Your task to perform on an android device: Open Google Maps Image 0: 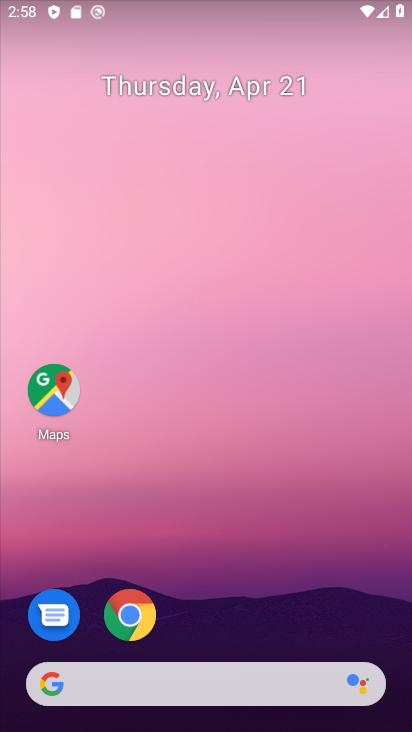
Step 0: press home button
Your task to perform on an android device: Open Google Maps Image 1: 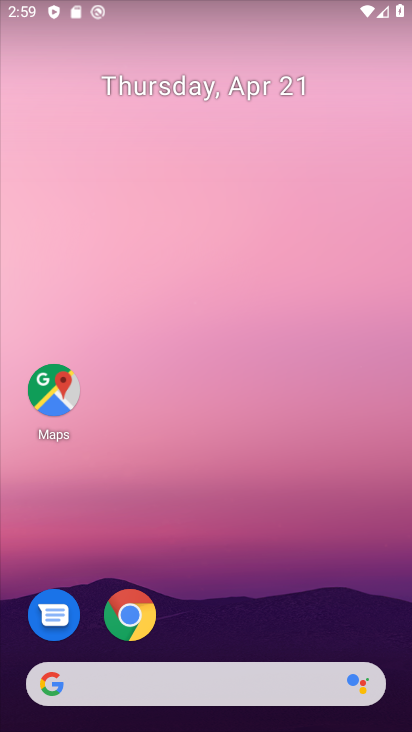
Step 1: drag from (231, 634) to (220, 29)
Your task to perform on an android device: Open Google Maps Image 2: 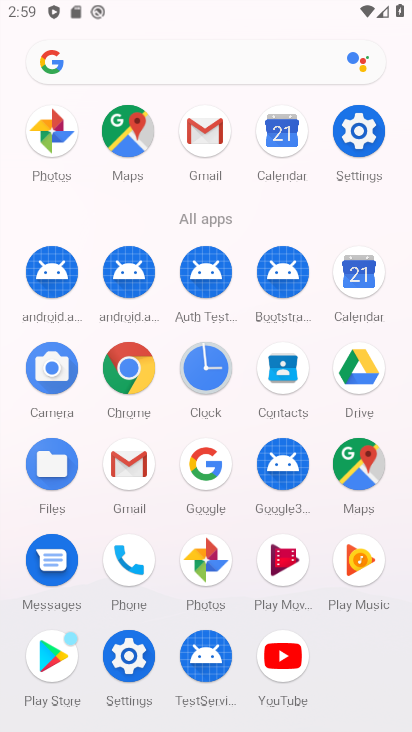
Step 2: click (357, 463)
Your task to perform on an android device: Open Google Maps Image 3: 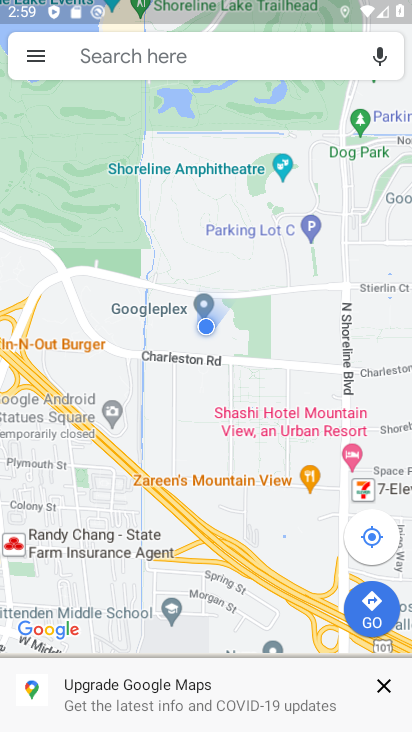
Step 3: click (379, 681)
Your task to perform on an android device: Open Google Maps Image 4: 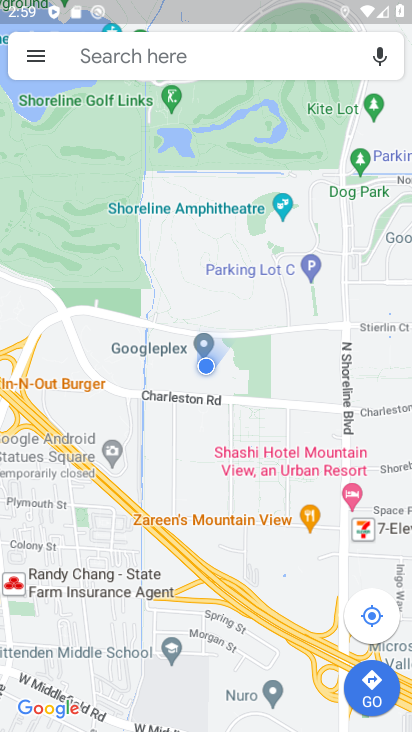
Step 4: task complete